Your task to perform on an android device: turn off priority inbox in the gmail app Image 0: 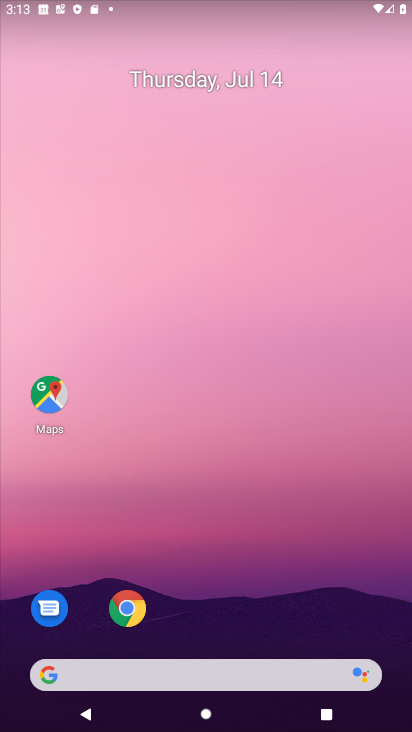
Step 0: drag from (239, 636) to (360, 52)
Your task to perform on an android device: turn off priority inbox in the gmail app Image 1: 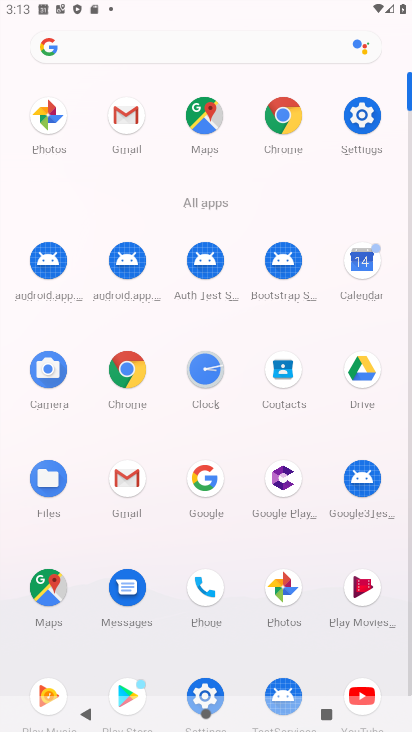
Step 1: click (126, 118)
Your task to perform on an android device: turn off priority inbox in the gmail app Image 2: 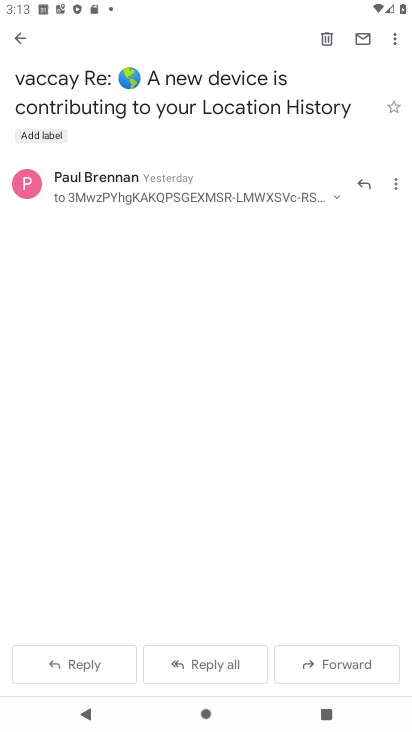
Step 2: click (24, 44)
Your task to perform on an android device: turn off priority inbox in the gmail app Image 3: 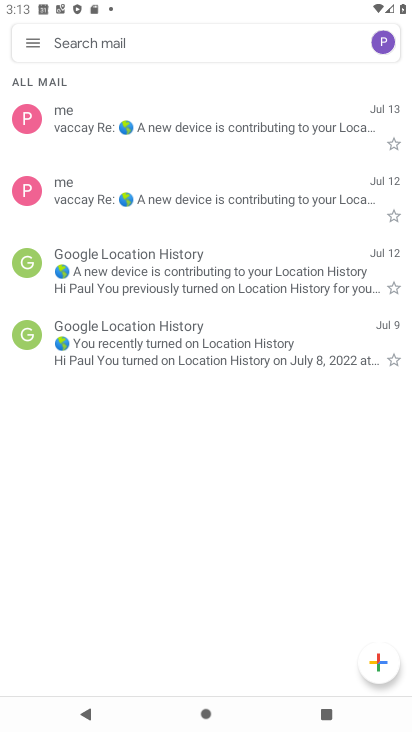
Step 3: click (24, 44)
Your task to perform on an android device: turn off priority inbox in the gmail app Image 4: 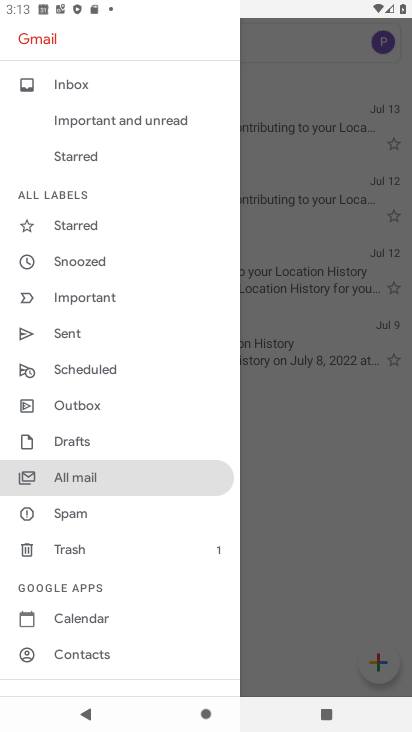
Step 4: drag from (98, 631) to (90, 376)
Your task to perform on an android device: turn off priority inbox in the gmail app Image 5: 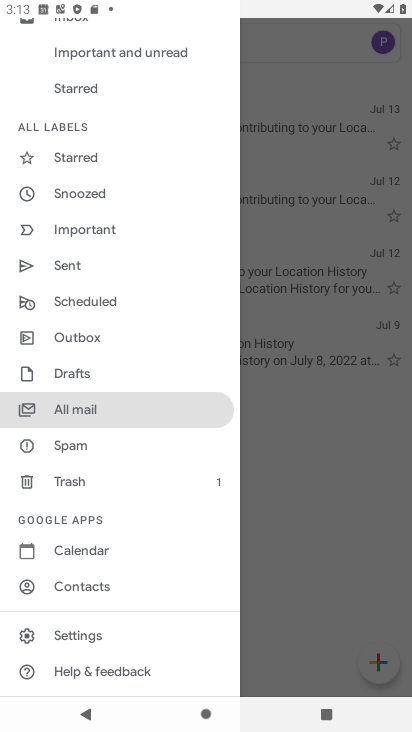
Step 5: click (120, 634)
Your task to perform on an android device: turn off priority inbox in the gmail app Image 6: 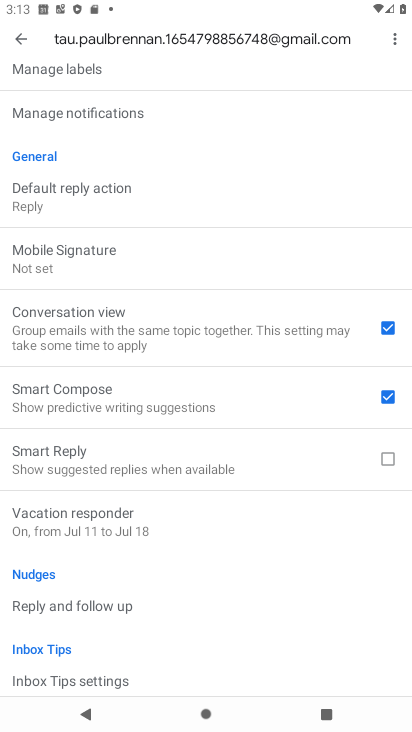
Step 6: drag from (88, 156) to (125, 531)
Your task to perform on an android device: turn off priority inbox in the gmail app Image 7: 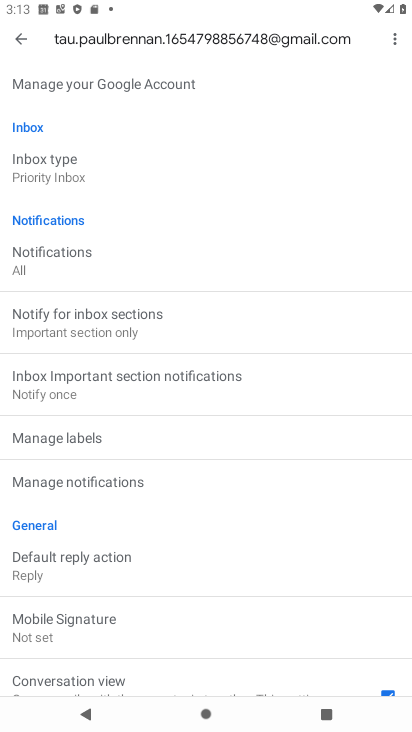
Step 7: click (77, 175)
Your task to perform on an android device: turn off priority inbox in the gmail app Image 8: 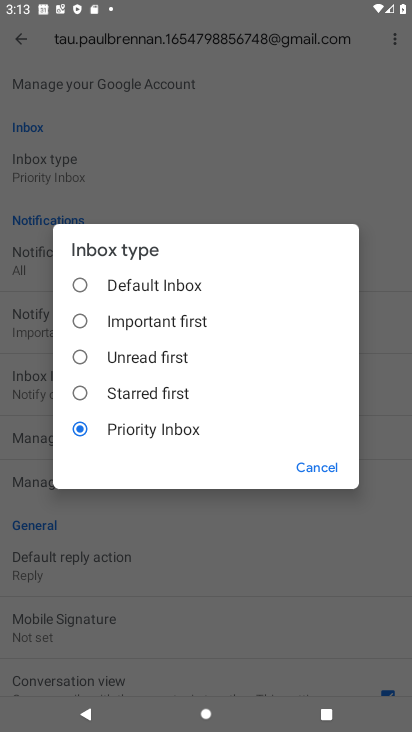
Step 8: click (136, 278)
Your task to perform on an android device: turn off priority inbox in the gmail app Image 9: 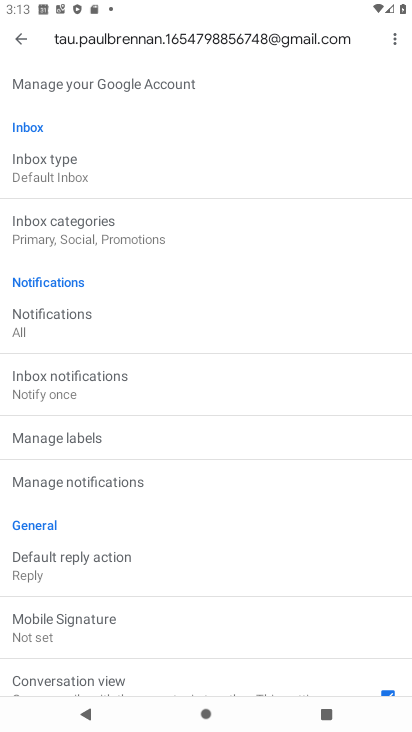
Step 9: task complete